Your task to perform on an android device: remove spam from my inbox in the gmail app Image 0: 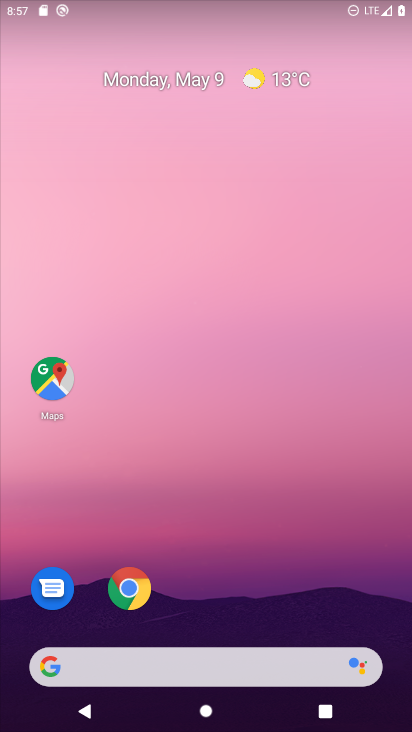
Step 0: click (298, 570)
Your task to perform on an android device: remove spam from my inbox in the gmail app Image 1: 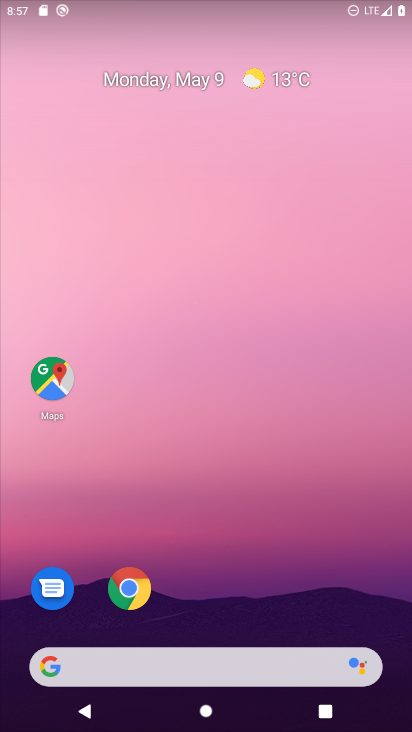
Step 1: drag from (184, 617) to (168, 167)
Your task to perform on an android device: remove spam from my inbox in the gmail app Image 2: 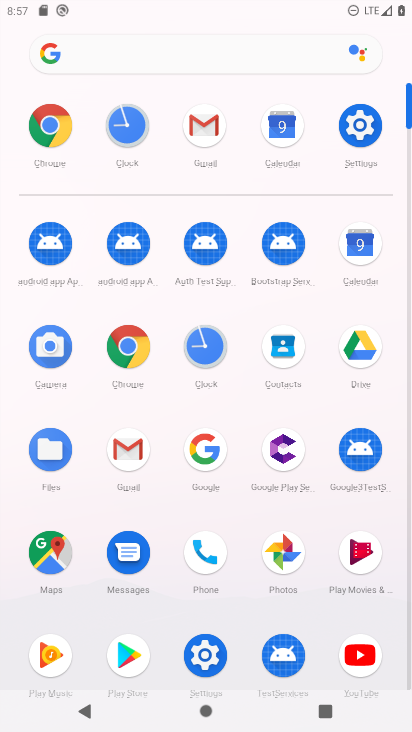
Step 2: click (134, 469)
Your task to perform on an android device: remove spam from my inbox in the gmail app Image 3: 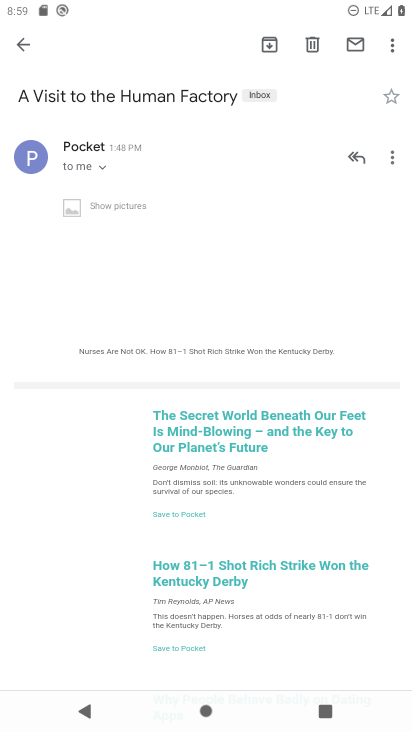
Step 3: click (30, 52)
Your task to perform on an android device: remove spam from my inbox in the gmail app Image 4: 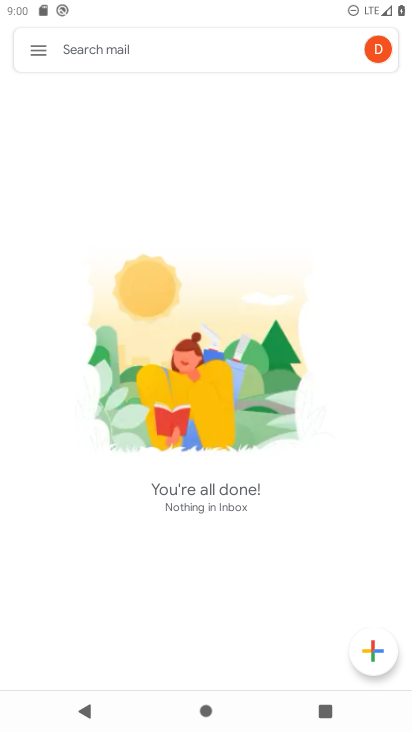
Step 4: click (31, 49)
Your task to perform on an android device: remove spam from my inbox in the gmail app Image 5: 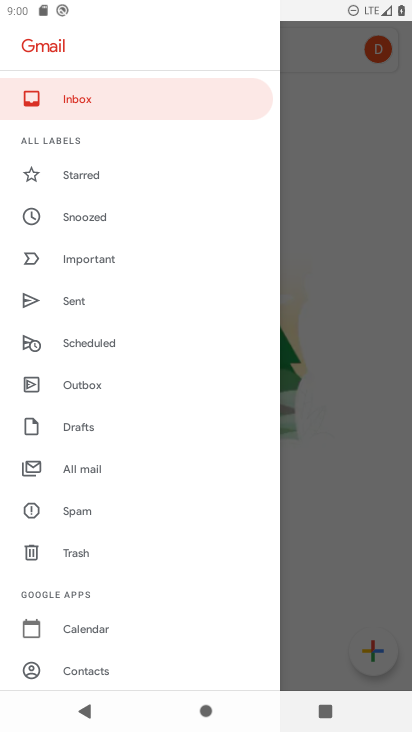
Step 5: drag from (84, 566) to (184, 243)
Your task to perform on an android device: remove spam from my inbox in the gmail app Image 6: 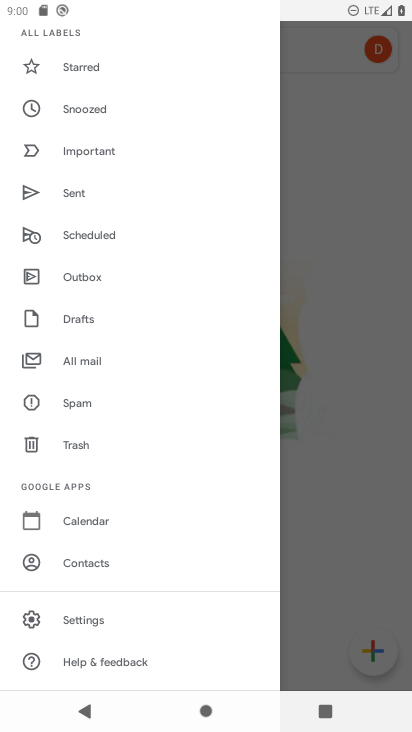
Step 6: click (138, 405)
Your task to perform on an android device: remove spam from my inbox in the gmail app Image 7: 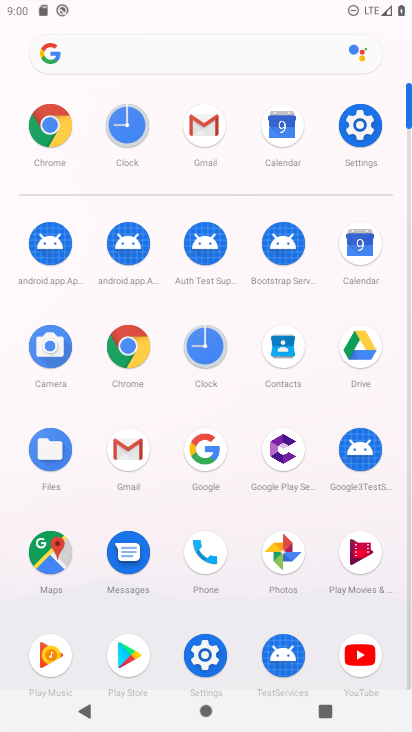
Step 7: task complete